Your task to perform on an android device: What's the weather? Image 0: 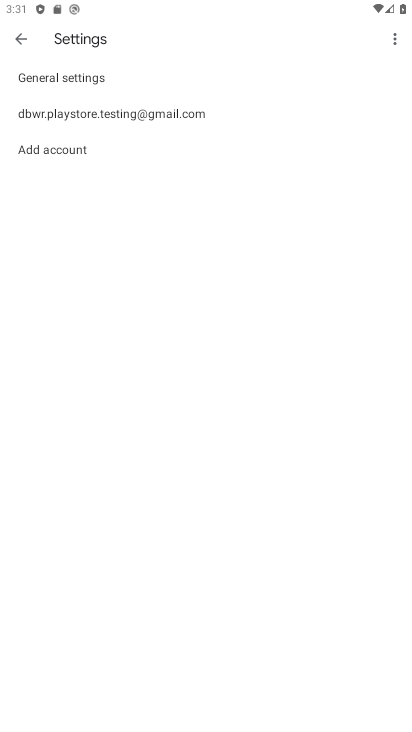
Step 0: press back button
Your task to perform on an android device: What's the weather? Image 1: 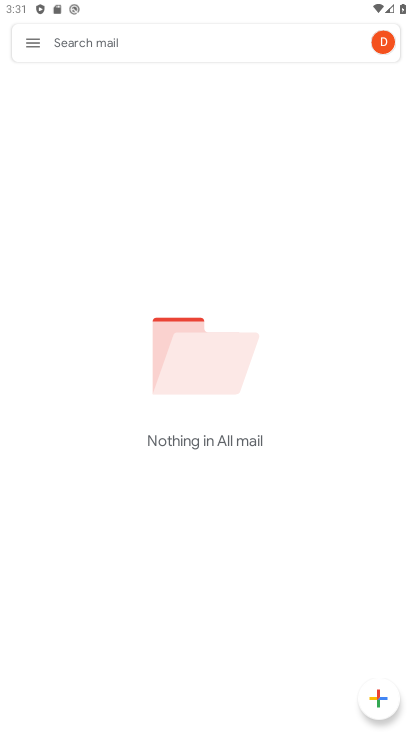
Step 1: press back button
Your task to perform on an android device: What's the weather? Image 2: 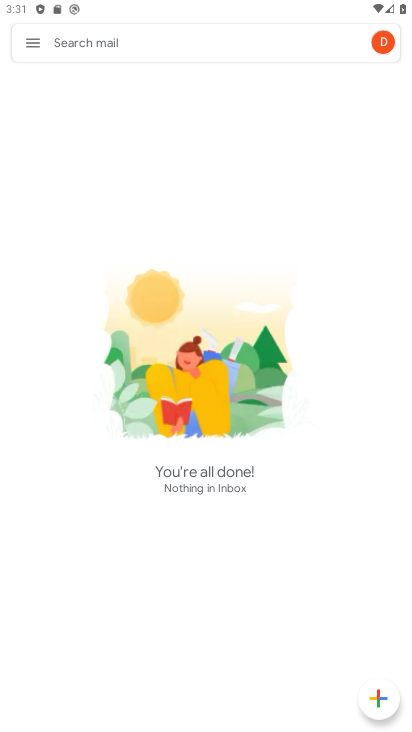
Step 2: press back button
Your task to perform on an android device: What's the weather? Image 3: 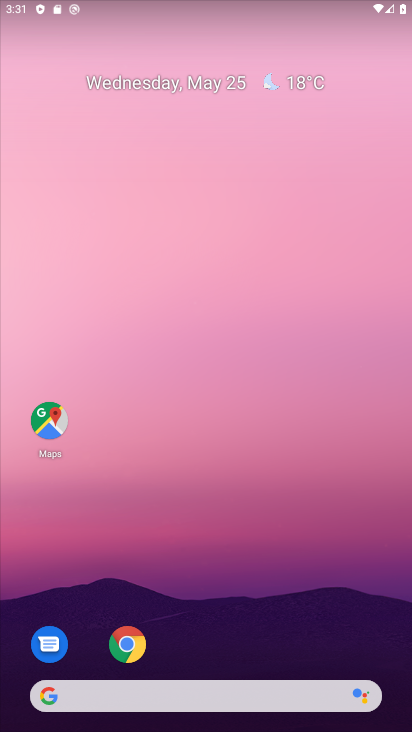
Step 3: drag from (247, 603) to (221, 176)
Your task to perform on an android device: What's the weather? Image 4: 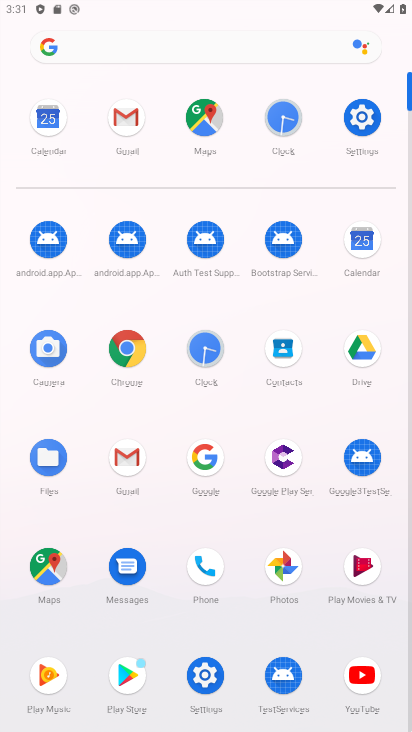
Step 4: click (202, 457)
Your task to perform on an android device: What's the weather? Image 5: 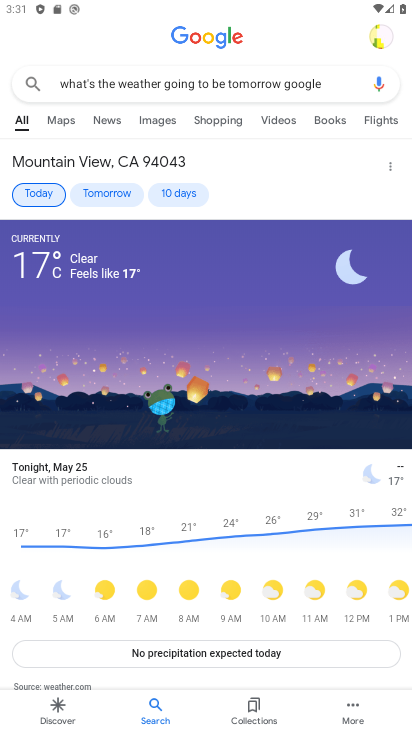
Step 5: click (330, 78)
Your task to perform on an android device: What's the weather? Image 6: 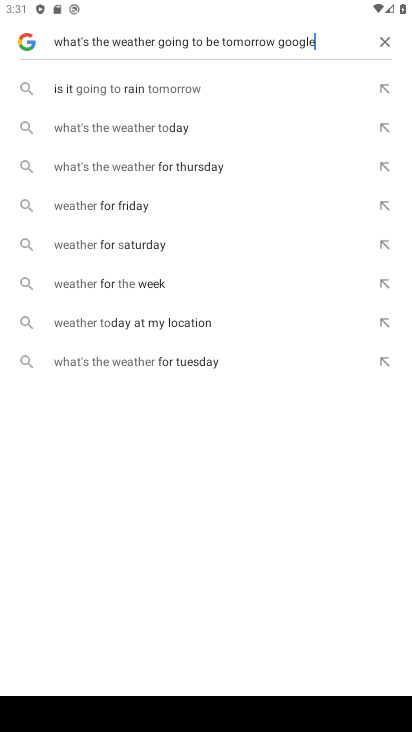
Step 6: click (389, 41)
Your task to perform on an android device: What's the weather? Image 7: 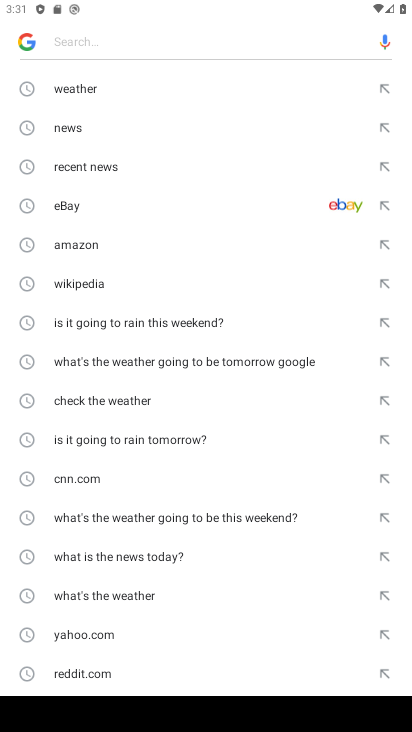
Step 7: click (68, 88)
Your task to perform on an android device: What's the weather? Image 8: 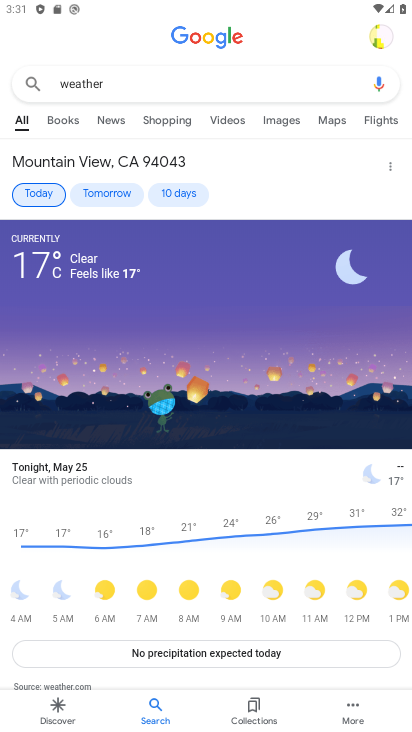
Step 8: task complete